Your task to perform on an android device: see sites visited before in the chrome app Image 0: 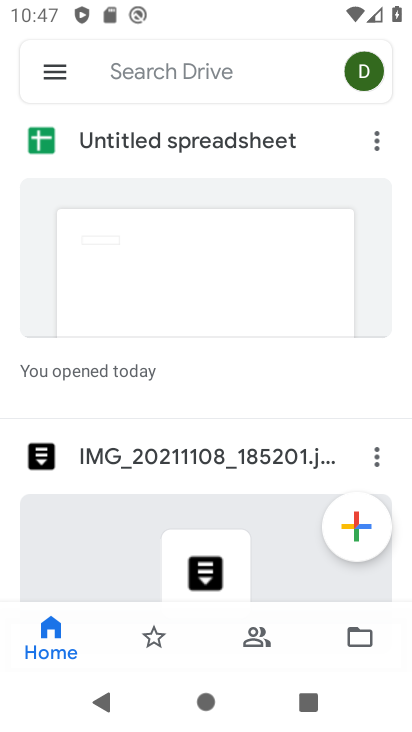
Step 0: press home button
Your task to perform on an android device: see sites visited before in the chrome app Image 1: 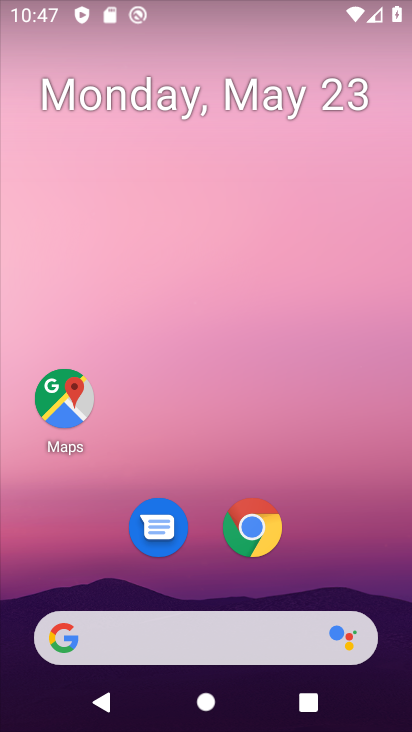
Step 1: click (251, 545)
Your task to perform on an android device: see sites visited before in the chrome app Image 2: 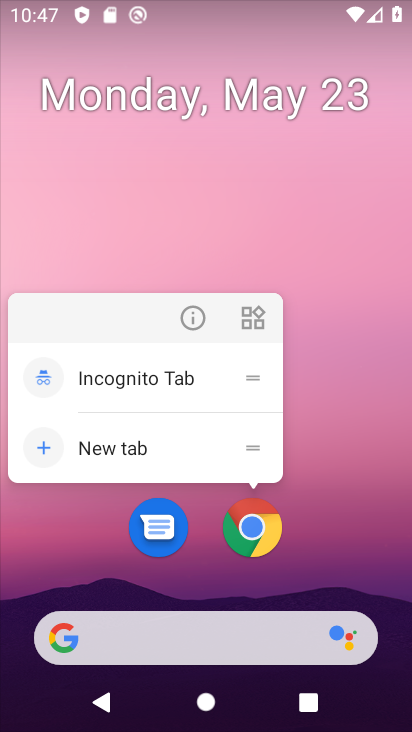
Step 2: click (252, 516)
Your task to perform on an android device: see sites visited before in the chrome app Image 3: 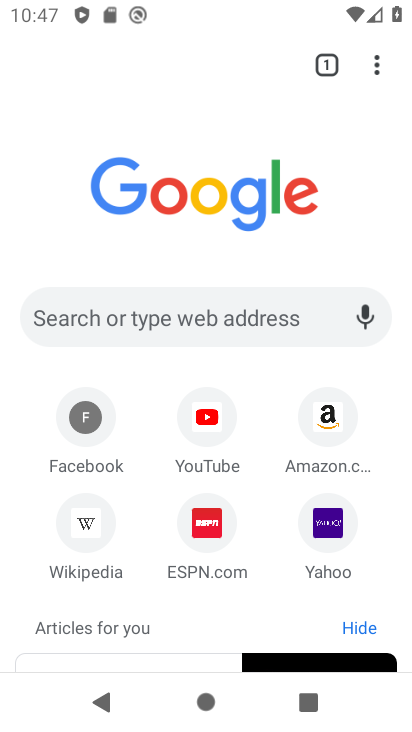
Step 3: click (381, 63)
Your task to perform on an android device: see sites visited before in the chrome app Image 4: 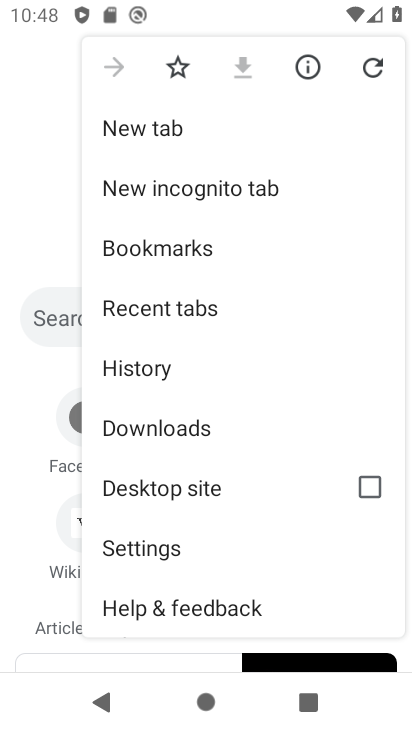
Step 4: click (180, 373)
Your task to perform on an android device: see sites visited before in the chrome app Image 5: 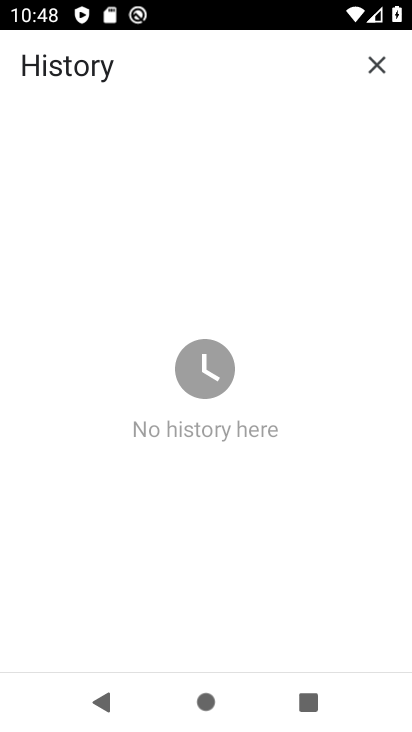
Step 5: task complete